Your task to perform on an android device: open app "Messenger Lite" Image 0: 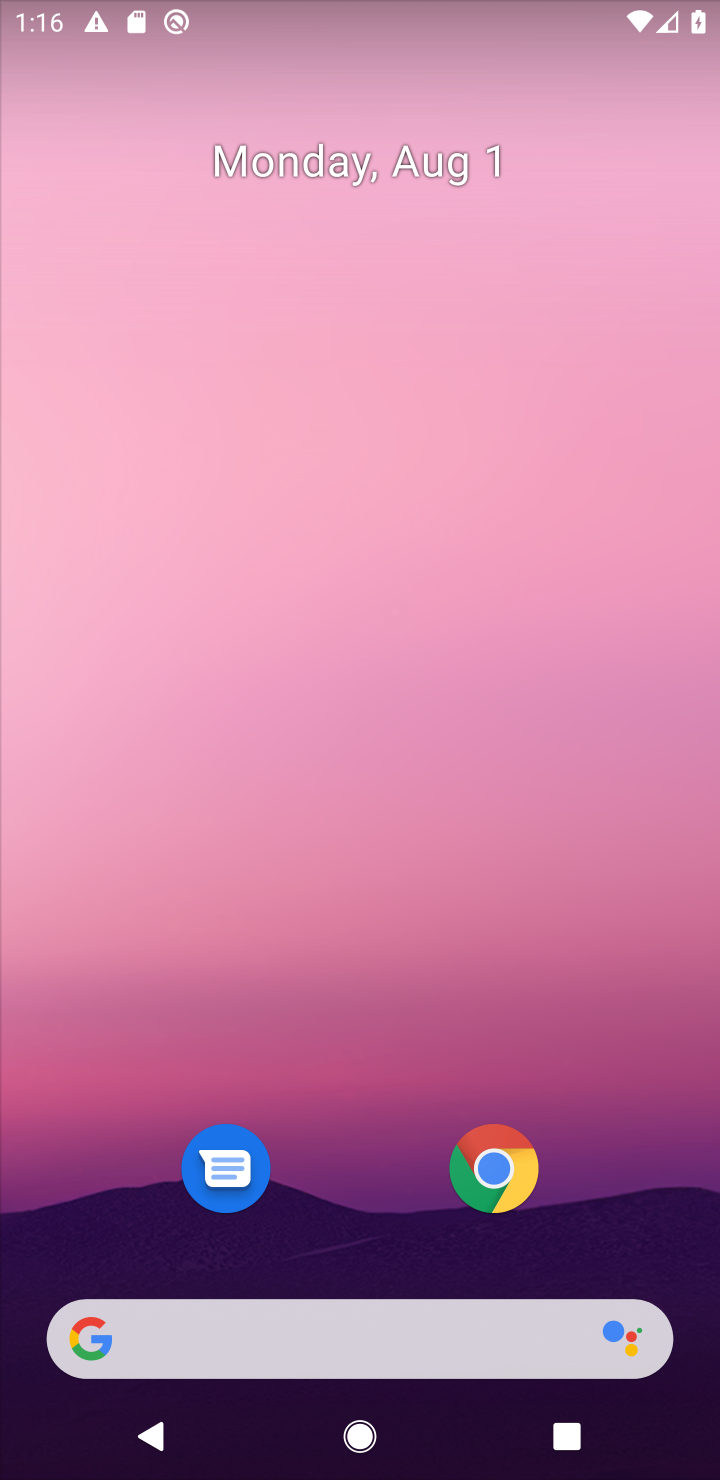
Step 0: drag from (314, 1060) to (319, 145)
Your task to perform on an android device: open app "Messenger Lite" Image 1: 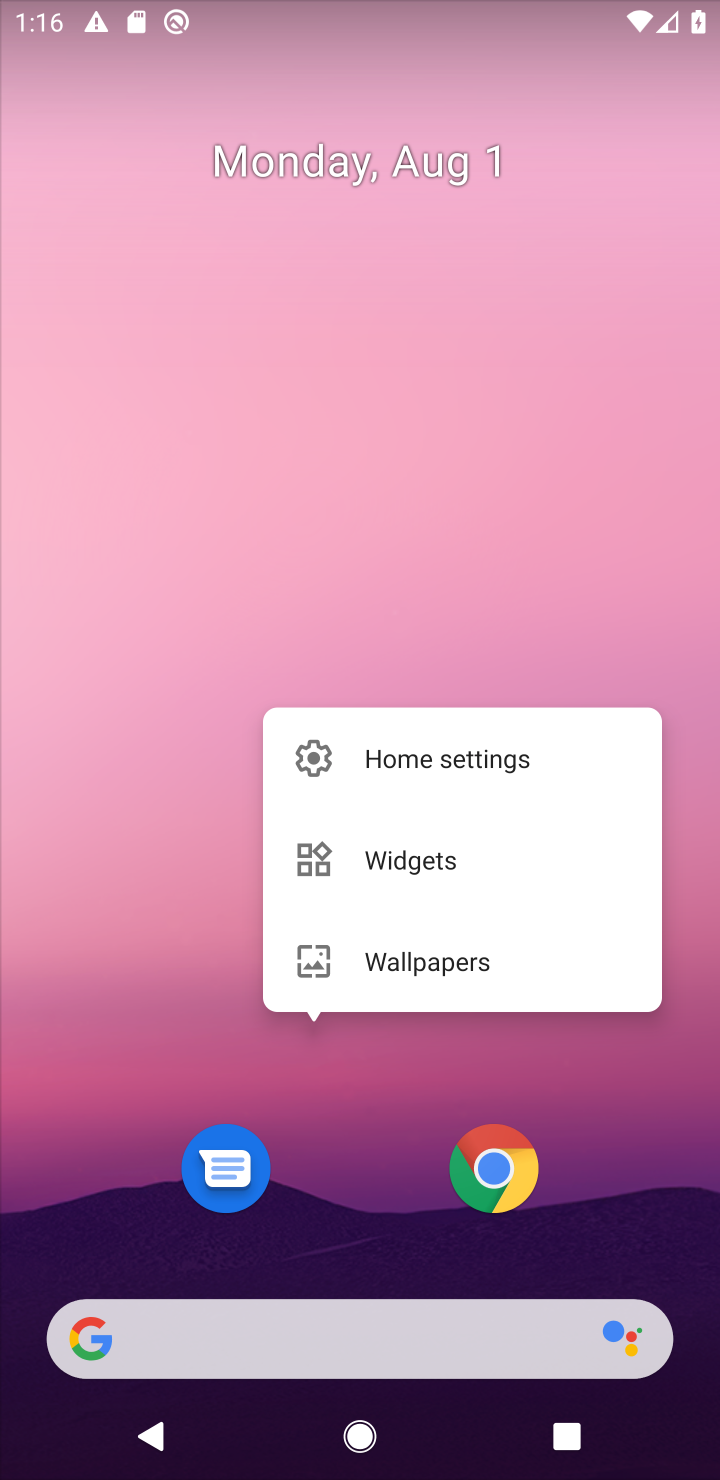
Step 1: click (322, 489)
Your task to perform on an android device: open app "Messenger Lite" Image 2: 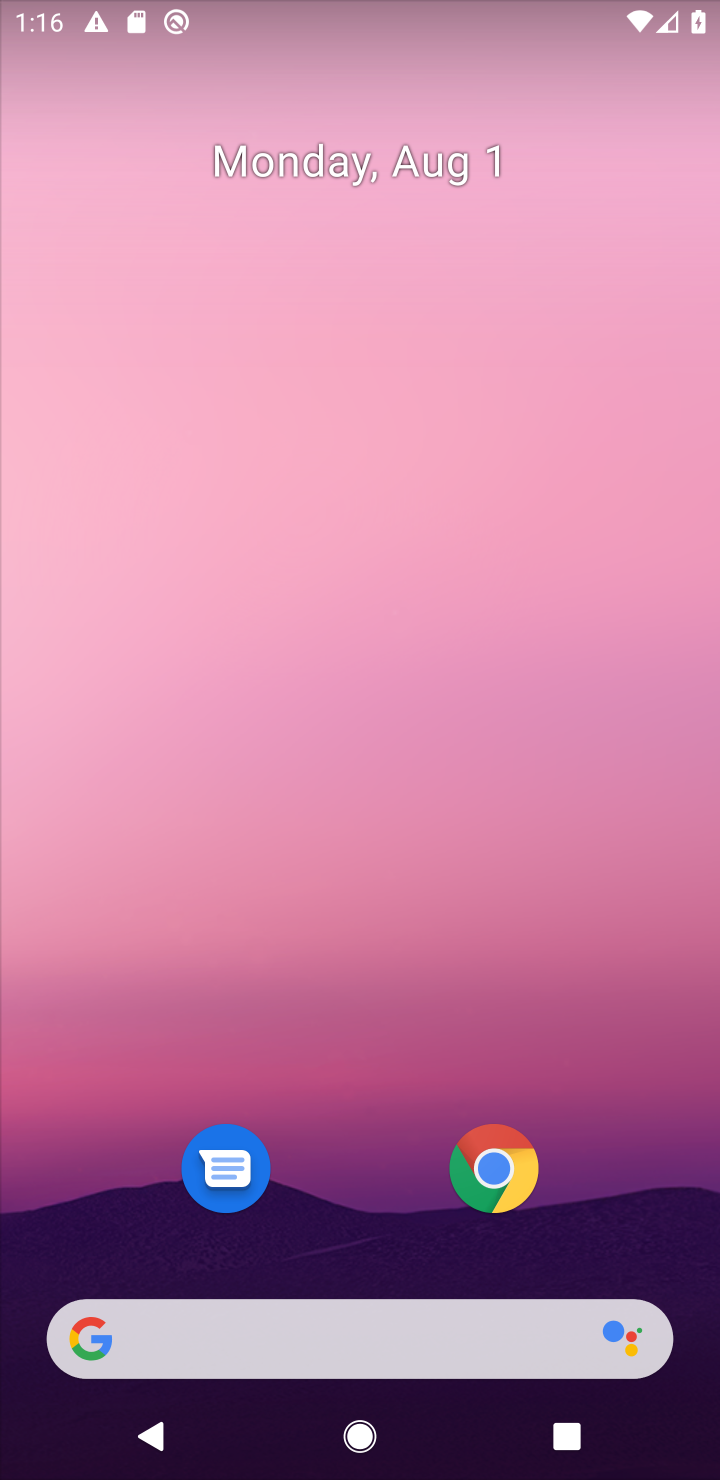
Step 2: drag from (338, 1233) to (469, 2)
Your task to perform on an android device: open app "Messenger Lite" Image 3: 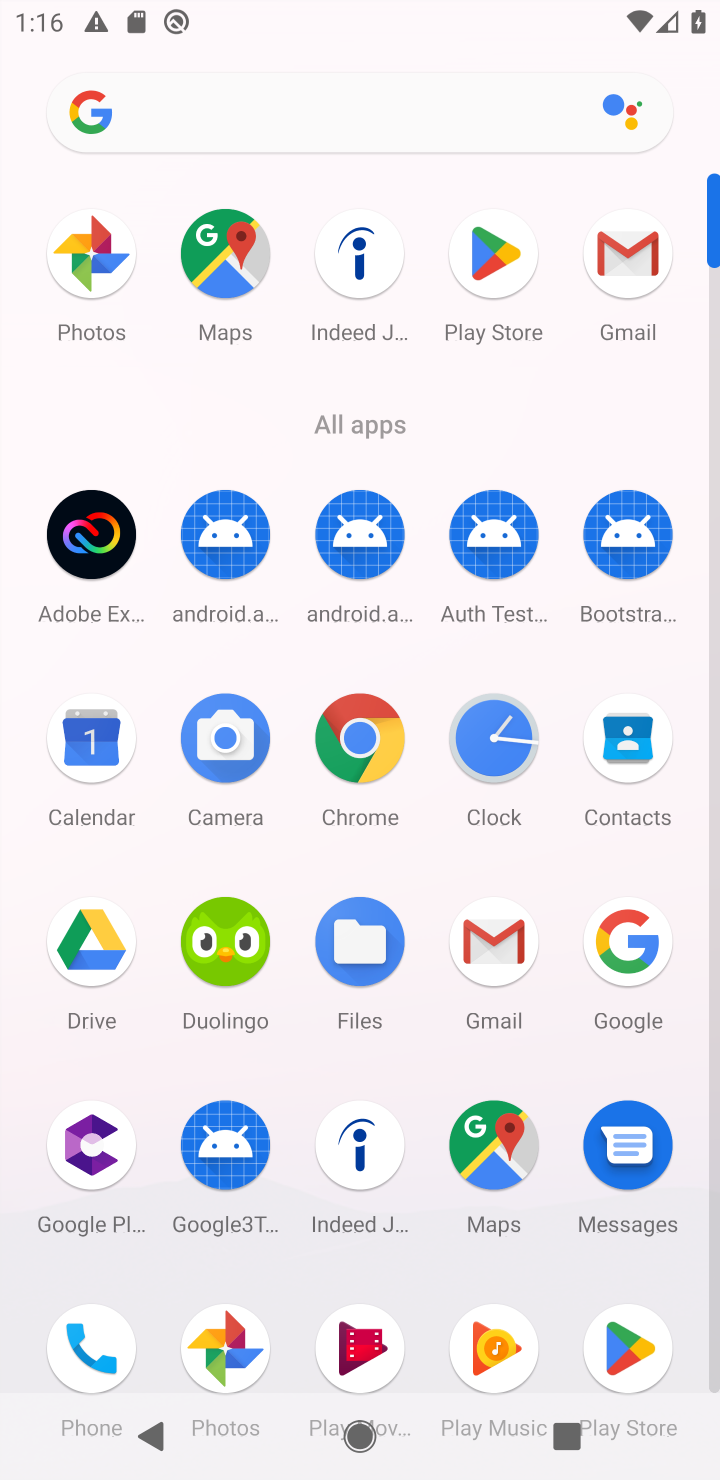
Step 3: click (498, 262)
Your task to perform on an android device: open app "Messenger Lite" Image 4: 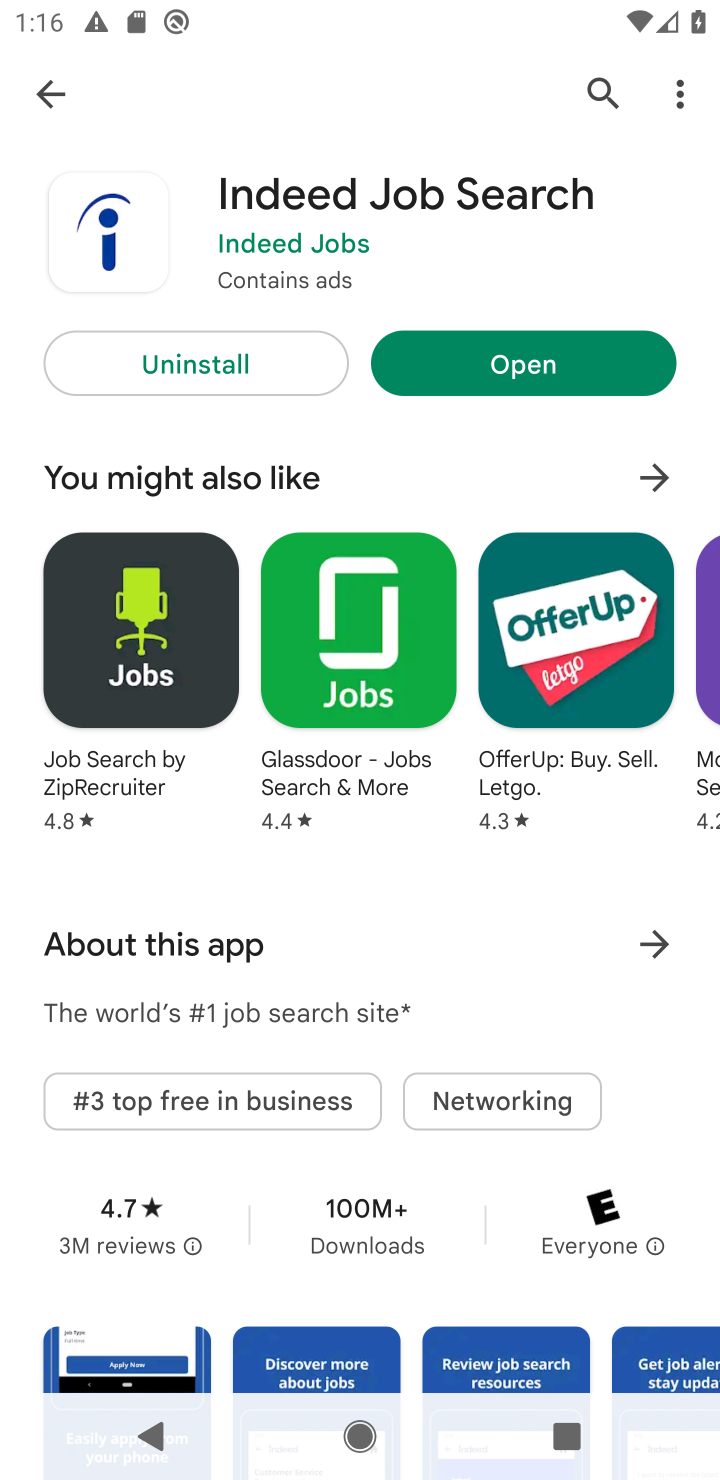
Step 4: click (598, 101)
Your task to perform on an android device: open app "Messenger Lite" Image 5: 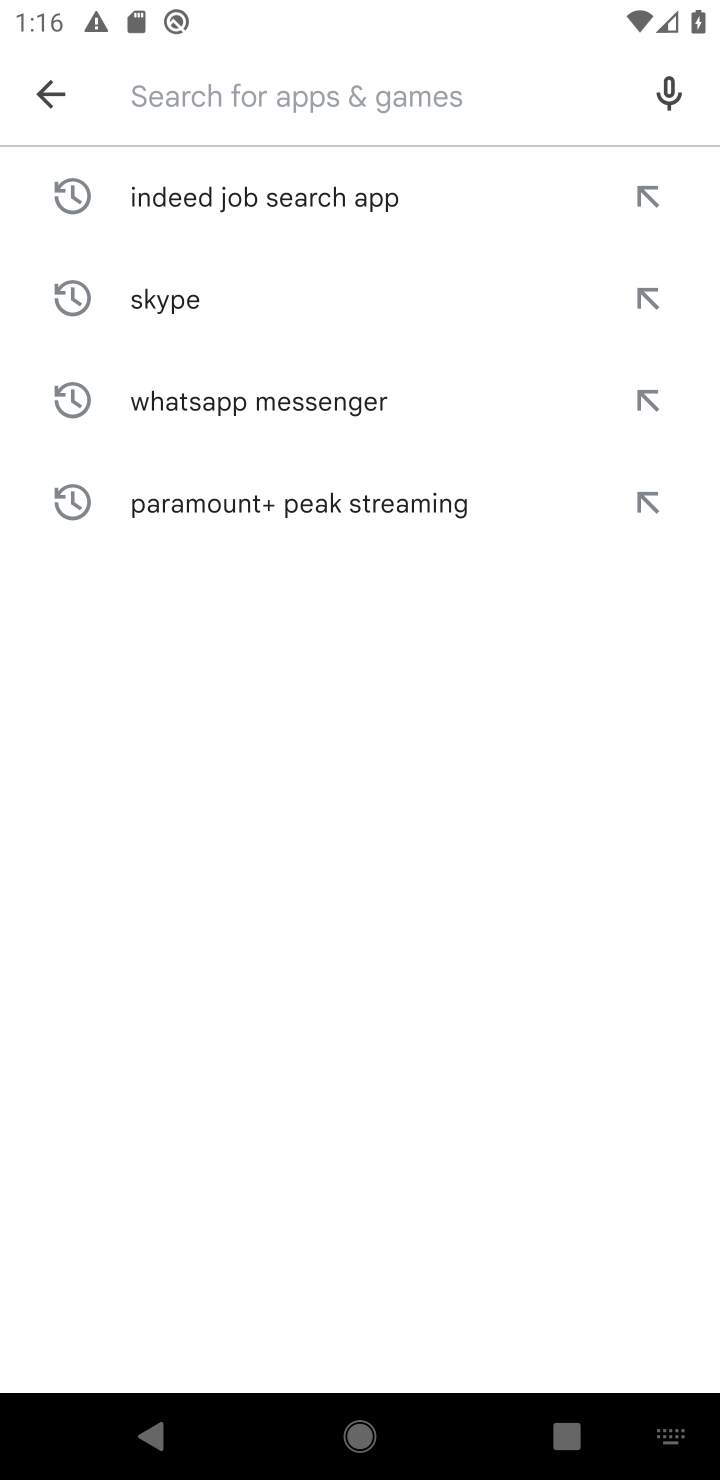
Step 5: type "messenger"
Your task to perform on an android device: open app "Messenger Lite" Image 6: 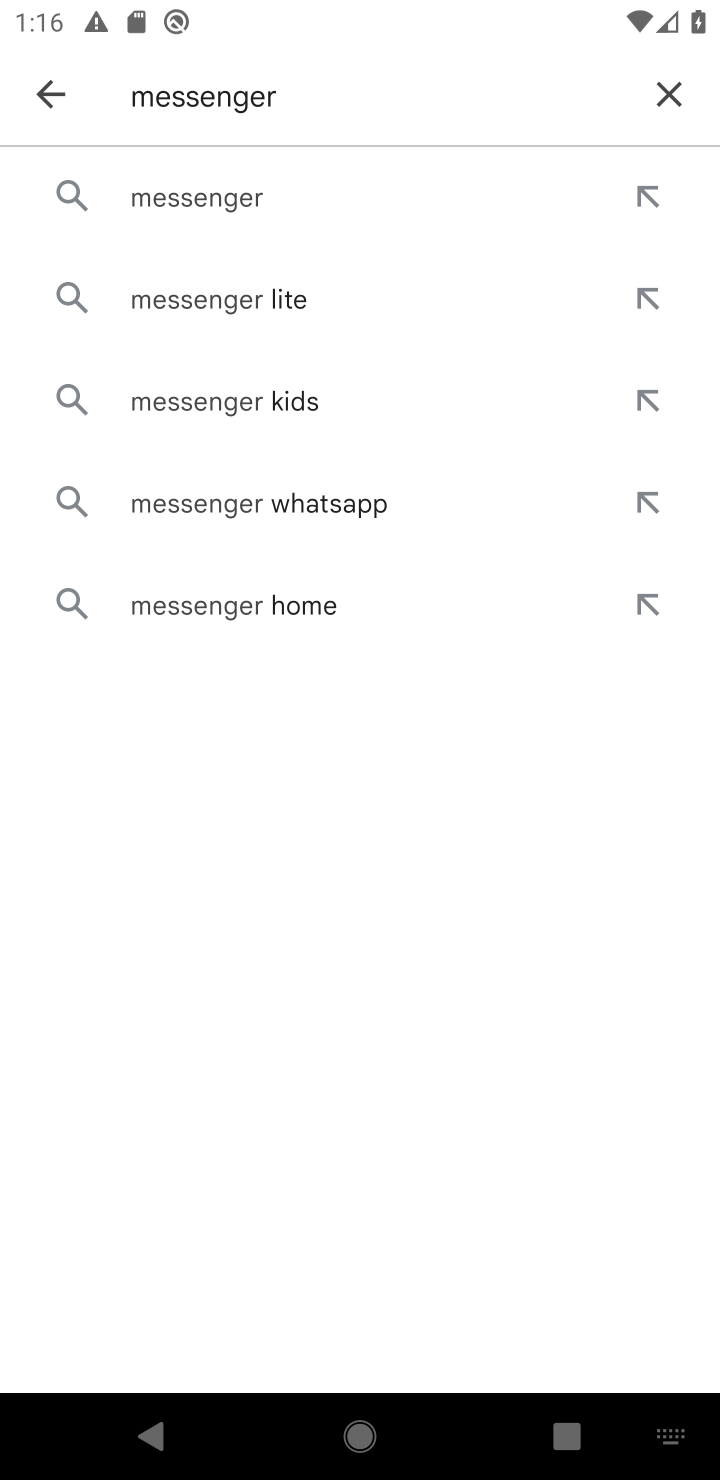
Step 6: type " lite"
Your task to perform on an android device: open app "Messenger Lite" Image 7: 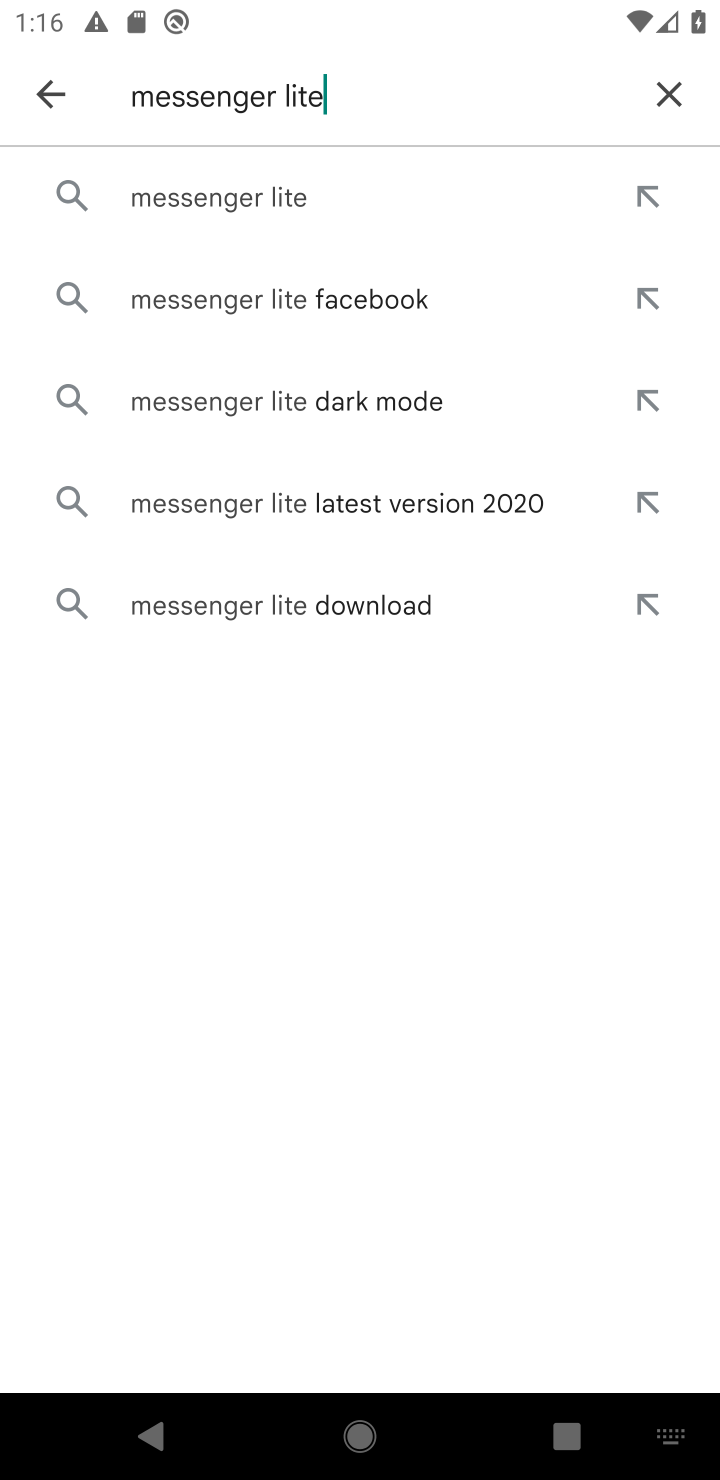
Step 7: click (245, 191)
Your task to perform on an android device: open app "Messenger Lite" Image 8: 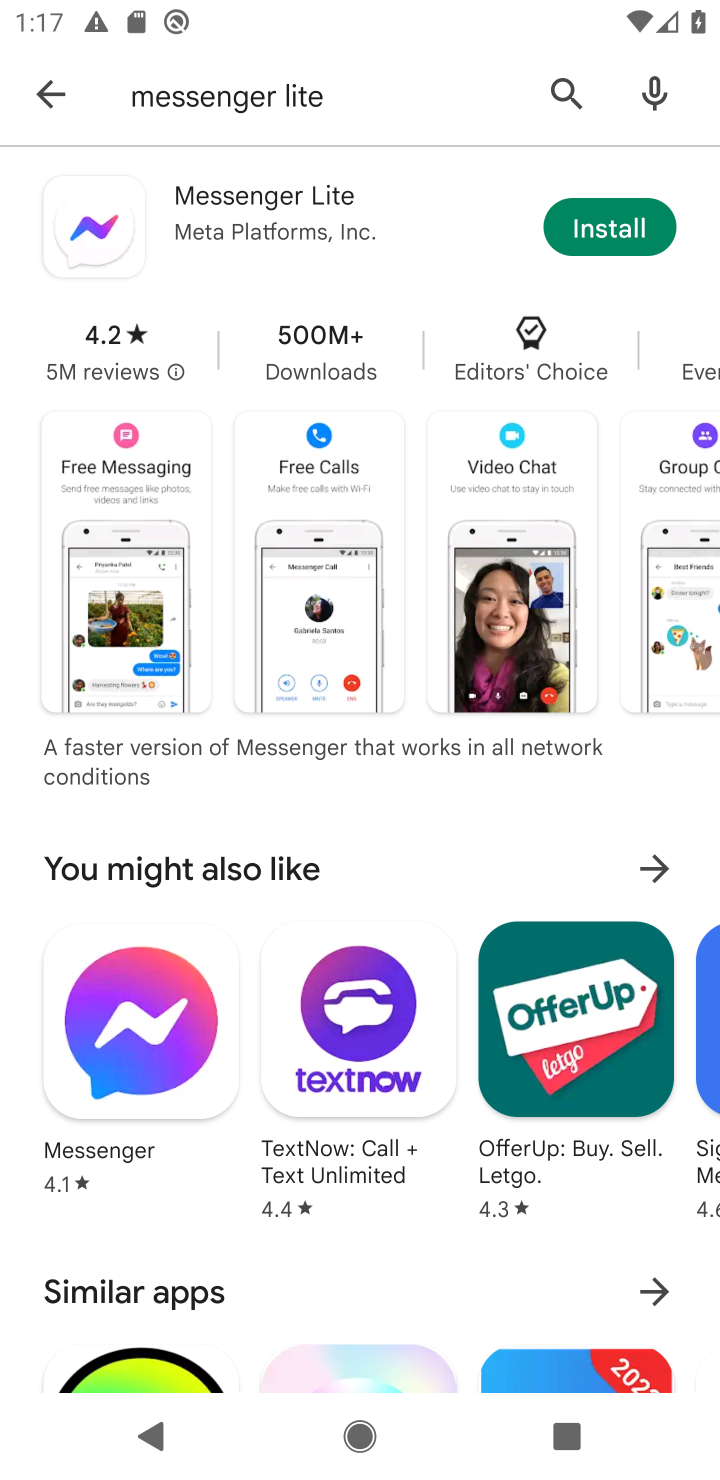
Step 8: click (362, 183)
Your task to perform on an android device: open app "Messenger Lite" Image 9: 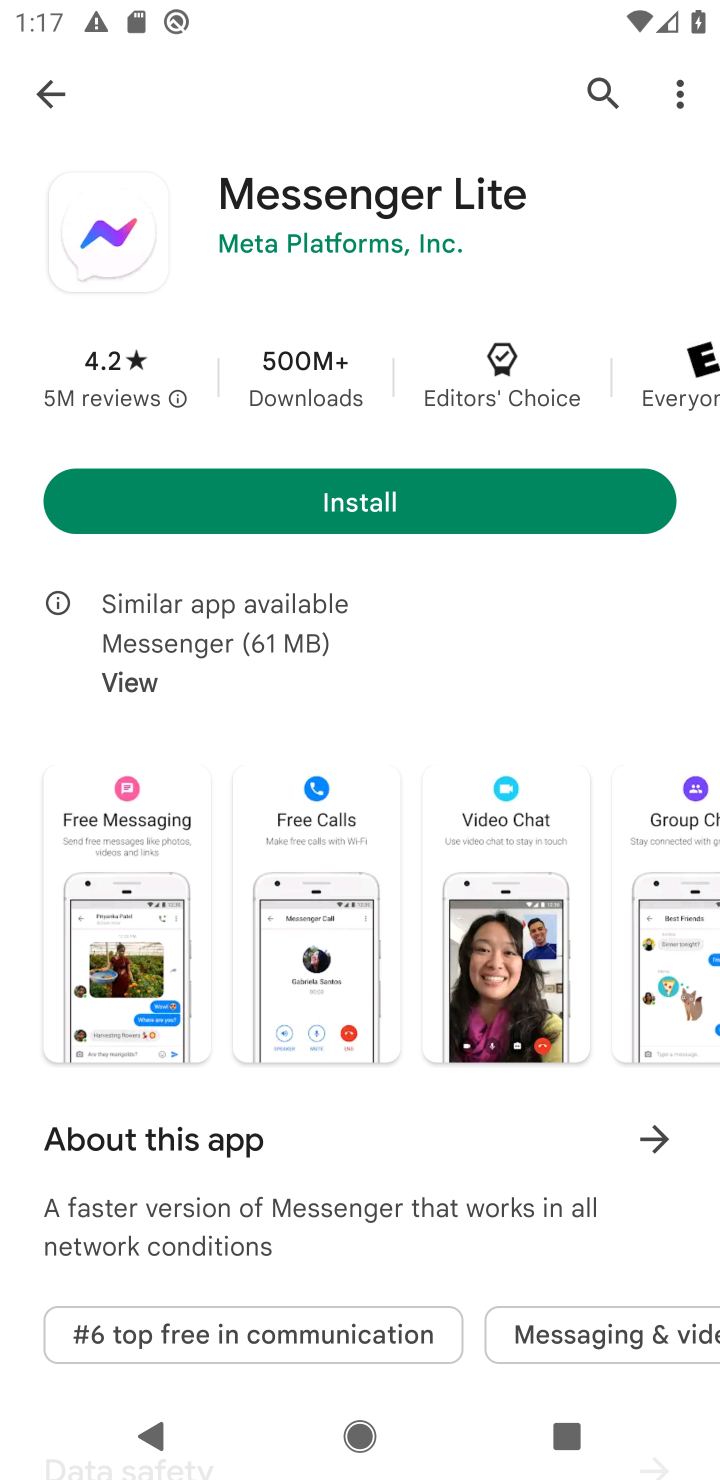
Step 9: task complete